Your task to perform on an android device: stop showing notifications on the lock screen Image 0: 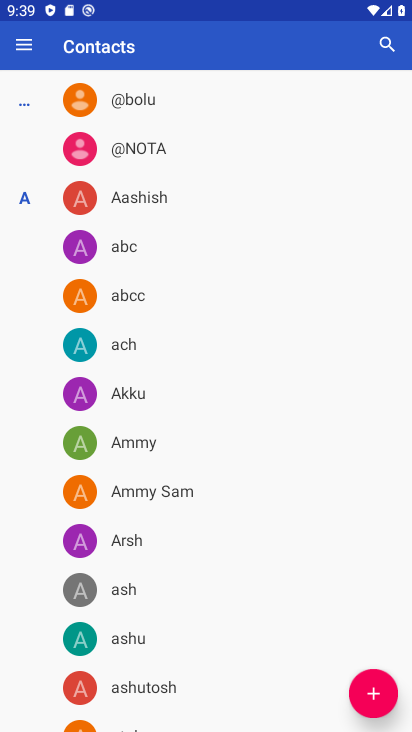
Step 0: press home button
Your task to perform on an android device: stop showing notifications on the lock screen Image 1: 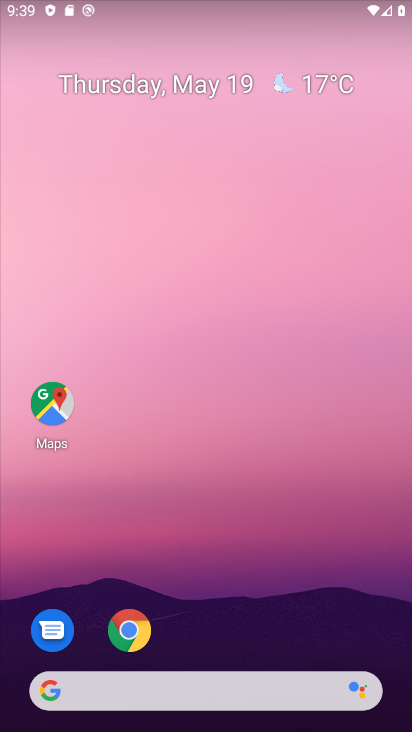
Step 1: drag from (198, 540) to (160, 219)
Your task to perform on an android device: stop showing notifications on the lock screen Image 2: 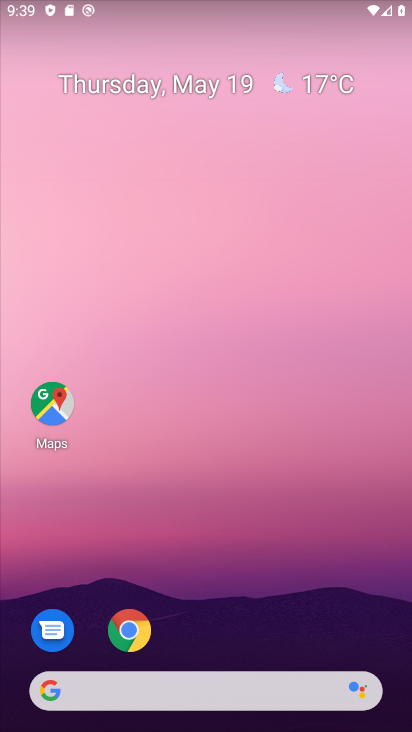
Step 2: drag from (189, 516) to (173, 79)
Your task to perform on an android device: stop showing notifications on the lock screen Image 3: 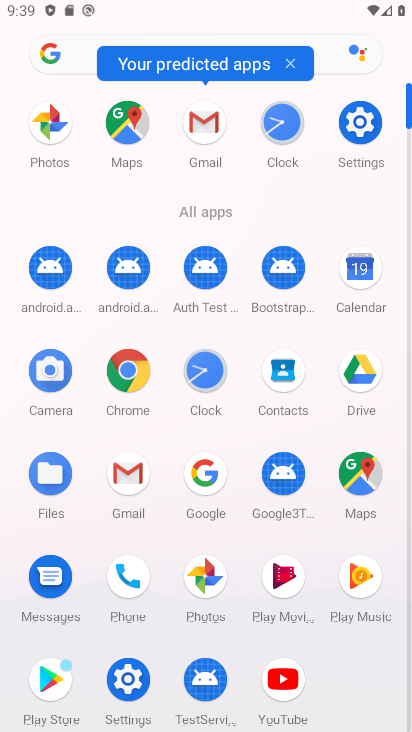
Step 3: click (351, 124)
Your task to perform on an android device: stop showing notifications on the lock screen Image 4: 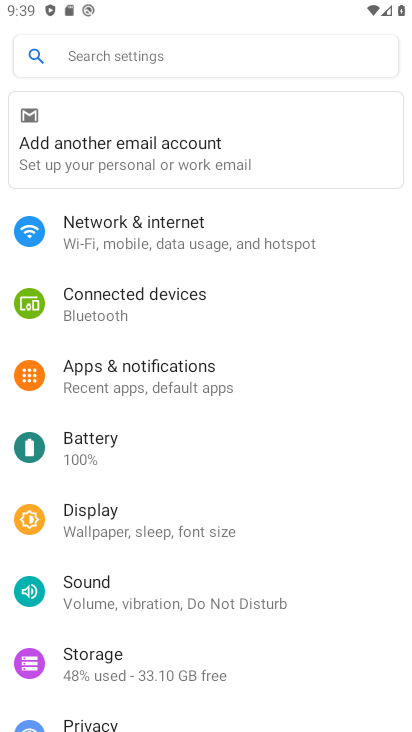
Step 4: click (146, 365)
Your task to perform on an android device: stop showing notifications on the lock screen Image 5: 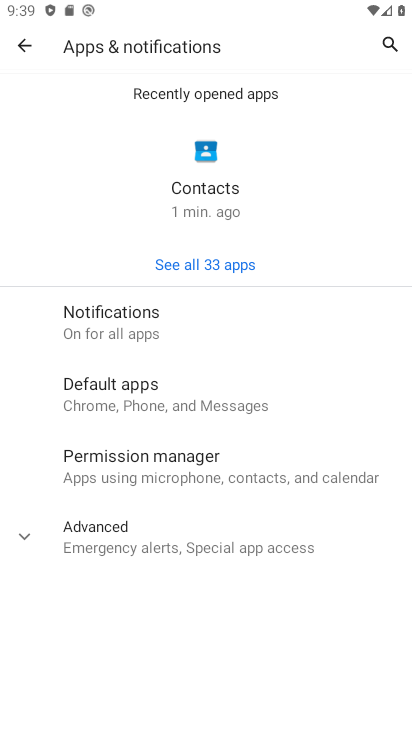
Step 5: click (107, 314)
Your task to perform on an android device: stop showing notifications on the lock screen Image 6: 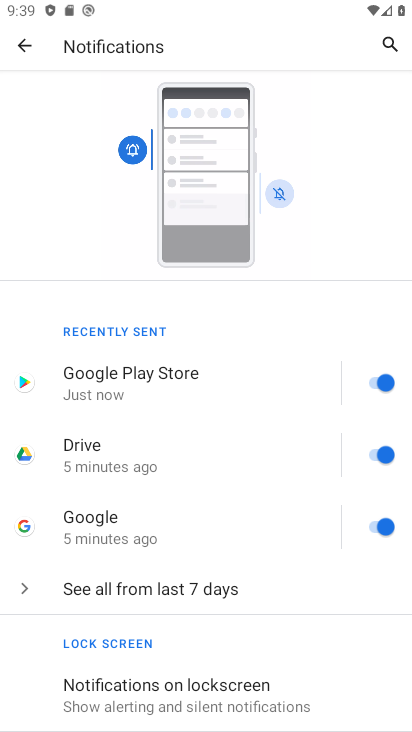
Step 6: click (202, 676)
Your task to perform on an android device: stop showing notifications on the lock screen Image 7: 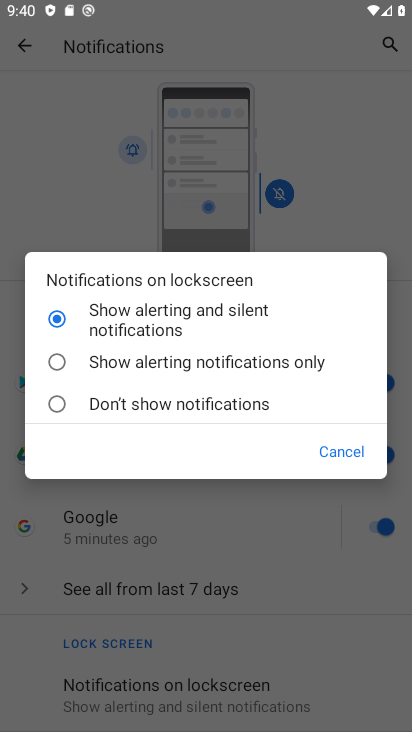
Step 7: click (62, 404)
Your task to perform on an android device: stop showing notifications on the lock screen Image 8: 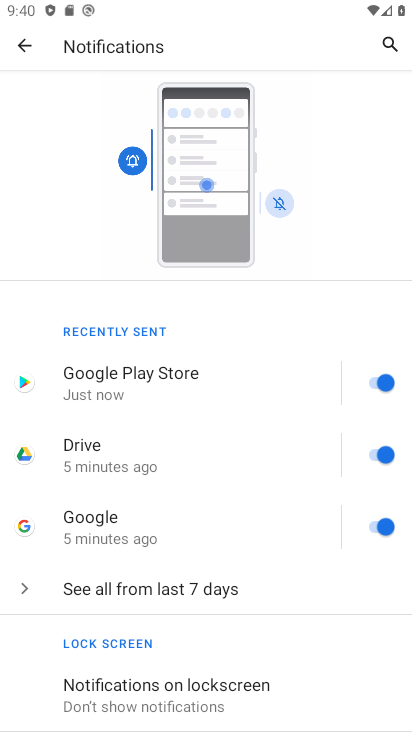
Step 8: task complete